Your task to perform on an android device: refresh tabs in the chrome app Image 0: 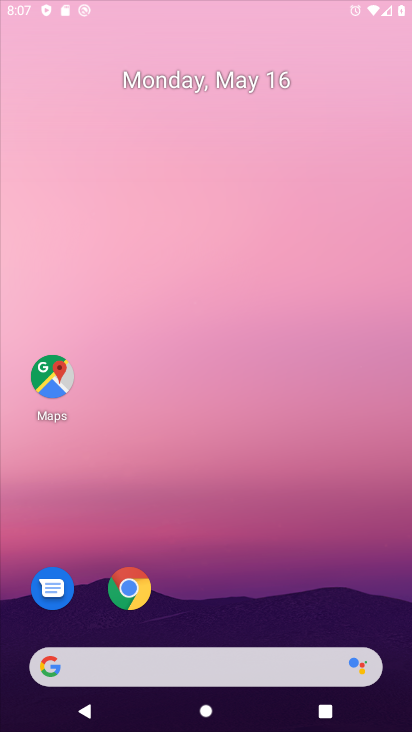
Step 0: drag from (313, 661) to (271, 174)
Your task to perform on an android device: refresh tabs in the chrome app Image 1: 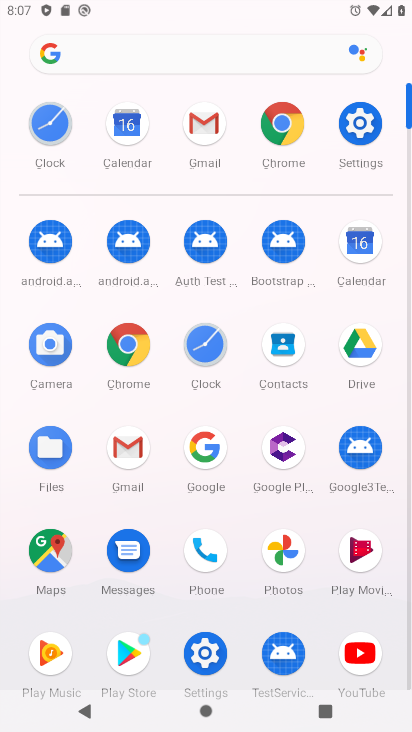
Step 1: click (282, 116)
Your task to perform on an android device: refresh tabs in the chrome app Image 2: 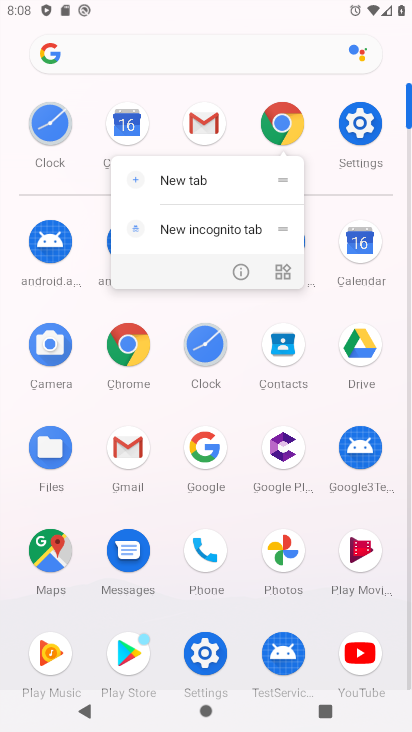
Step 2: click (285, 132)
Your task to perform on an android device: refresh tabs in the chrome app Image 3: 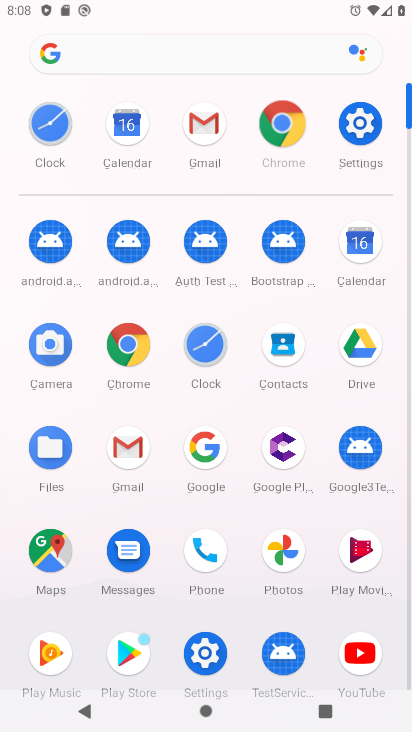
Step 3: click (285, 133)
Your task to perform on an android device: refresh tabs in the chrome app Image 4: 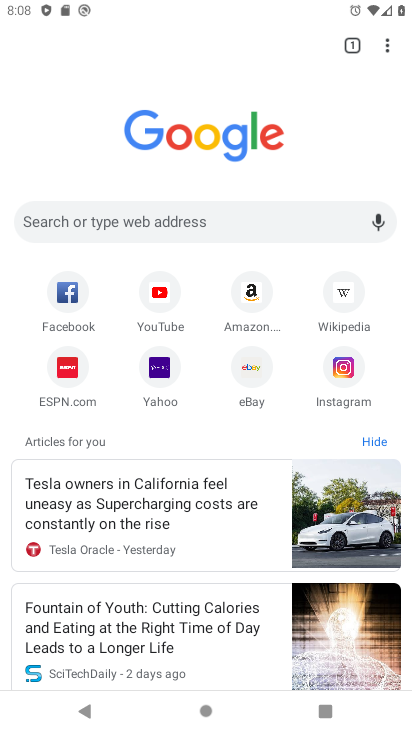
Step 4: click (379, 47)
Your task to perform on an android device: refresh tabs in the chrome app Image 5: 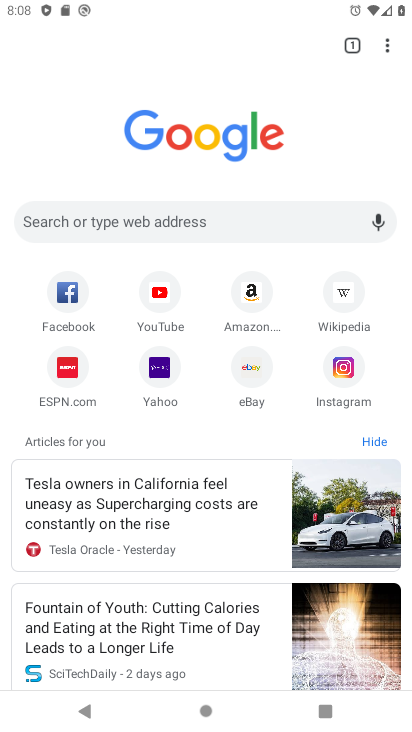
Step 5: click (384, 39)
Your task to perform on an android device: refresh tabs in the chrome app Image 6: 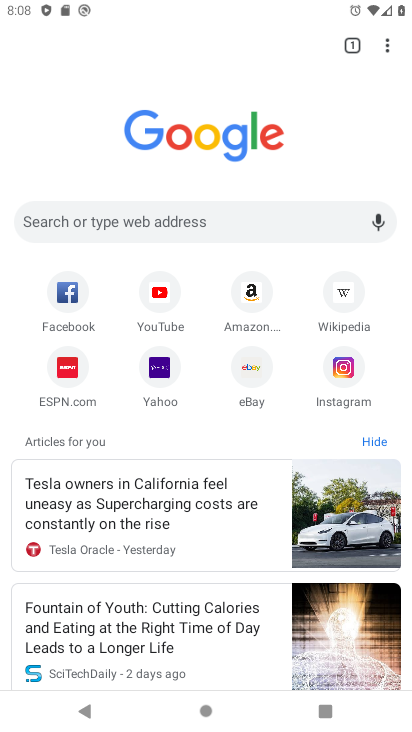
Step 6: click (385, 49)
Your task to perform on an android device: refresh tabs in the chrome app Image 7: 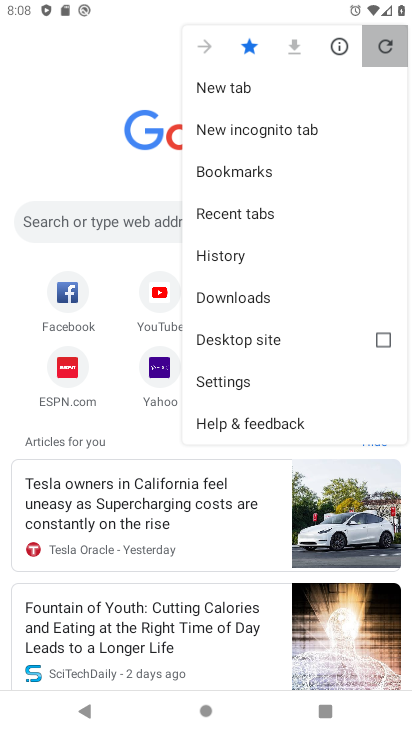
Step 7: click (389, 41)
Your task to perform on an android device: refresh tabs in the chrome app Image 8: 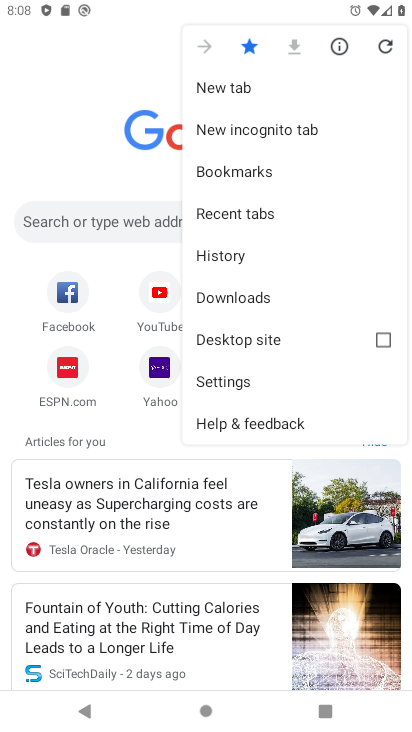
Step 8: task complete